Your task to perform on an android device: clear history in the chrome app Image 0: 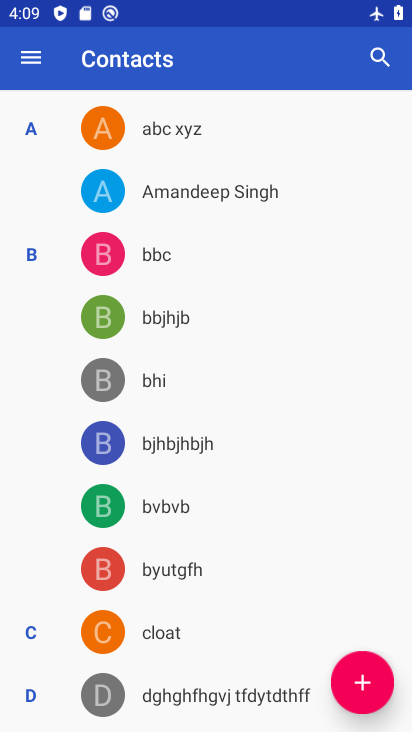
Step 0: press home button
Your task to perform on an android device: clear history in the chrome app Image 1: 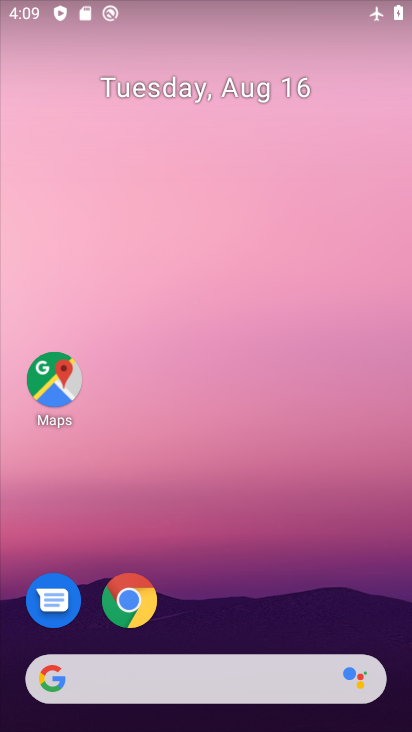
Step 1: drag from (217, 620) to (228, 10)
Your task to perform on an android device: clear history in the chrome app Image 2: 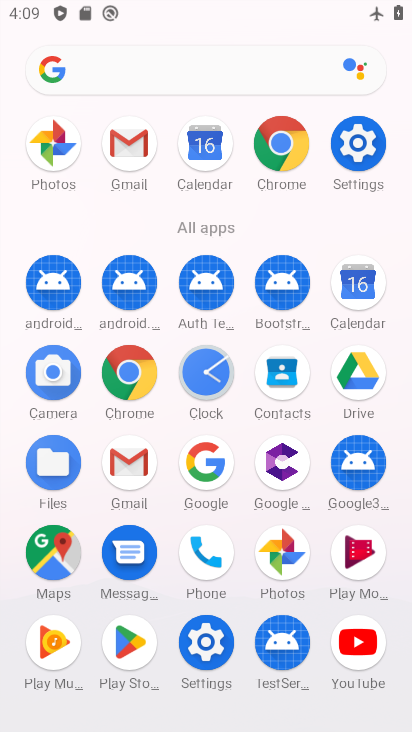
Step 2: click (124, 379)
Your task to perform on an android device: clear history in the chrome app Image 3: 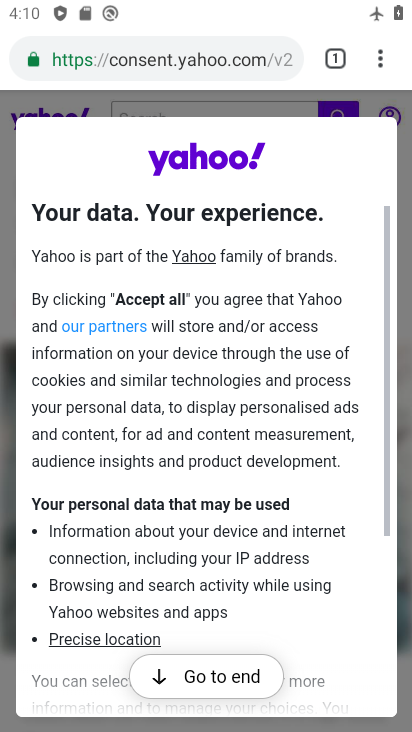
Step 3: click (372, 58)
Your task to perform on an android device: clear history in the chrome app Image 4: 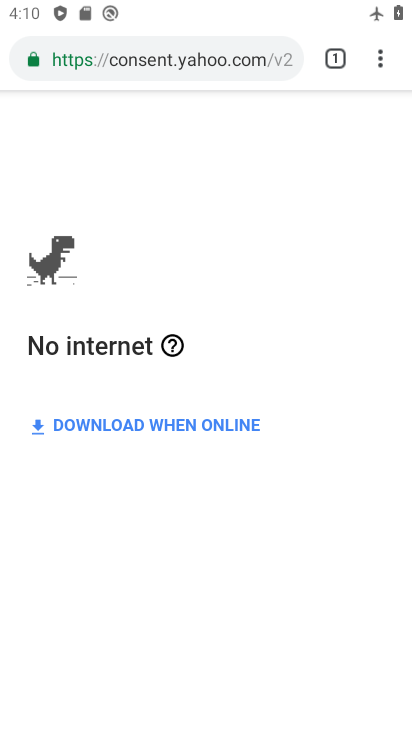
Step 4: click (378, 70)
Your task to perform on an android device: clear history in the chrome app Image 5: 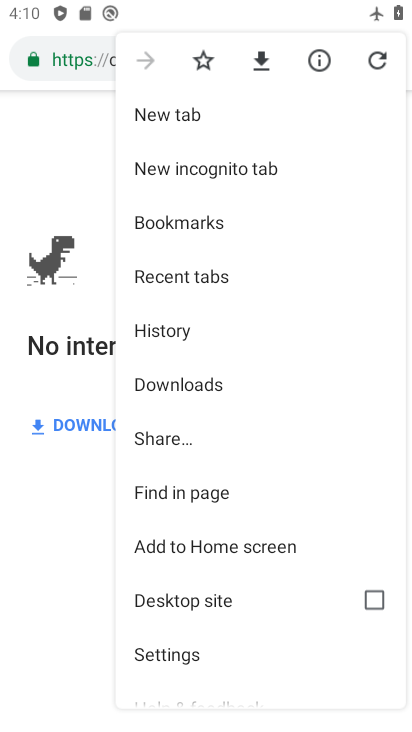
Step 5: click (182, 327)
Your task to perform on an android device: clear history in the chrome app Image 6: 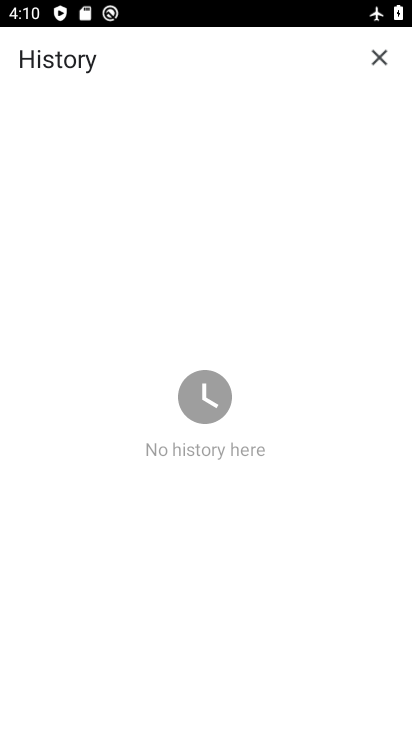
Step 6: task complete